Your task to perform on an android device: Open Wikipedia Image 0: 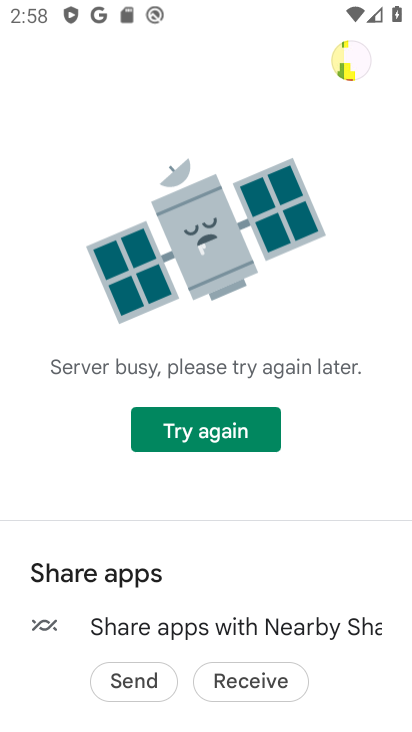
Step 0: press home button
Your task to perform on an android device: Open Wikipedia Image 1: 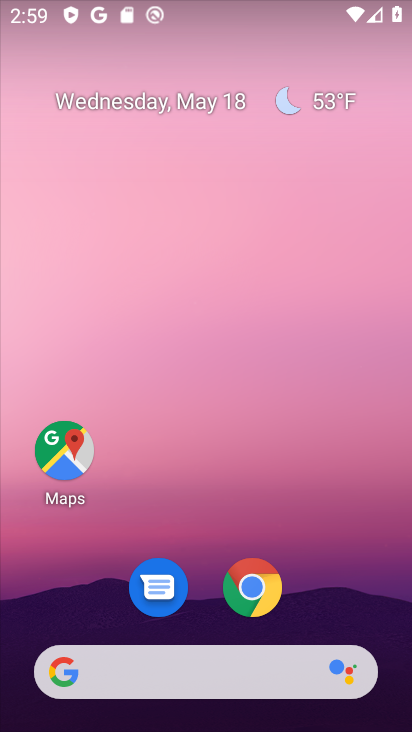
Step 1: drag from (241, 515) to (335, 65)
Your task to perform on an android device: Open Wikipedia Image 2: 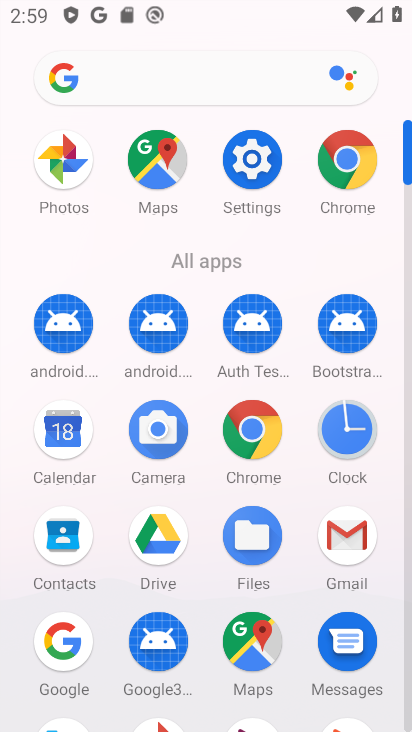
Step 2: click (343, 179)
Your task to perform on an android device: Open Wikipedia Image 3: 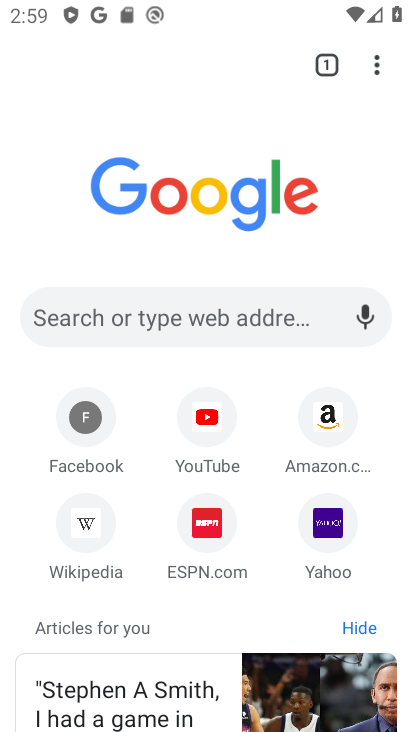
Step 3: click (378, 73)
Your task to perform on an android device: Open Wikipedia Image 4: 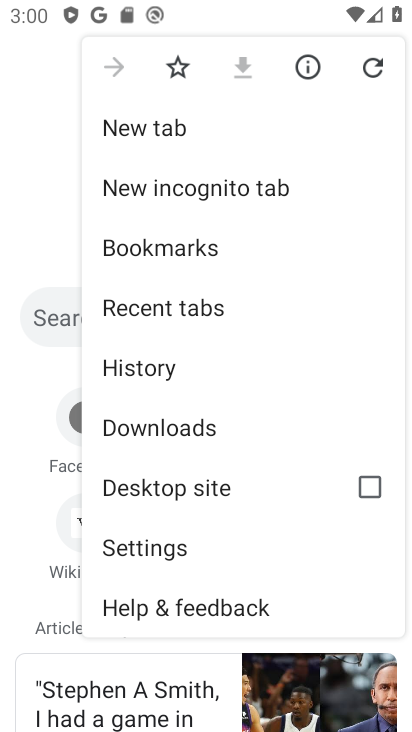
Step 4: click (37, 206)
Your task to perform on an android device: Open Wikipedia Image 5: 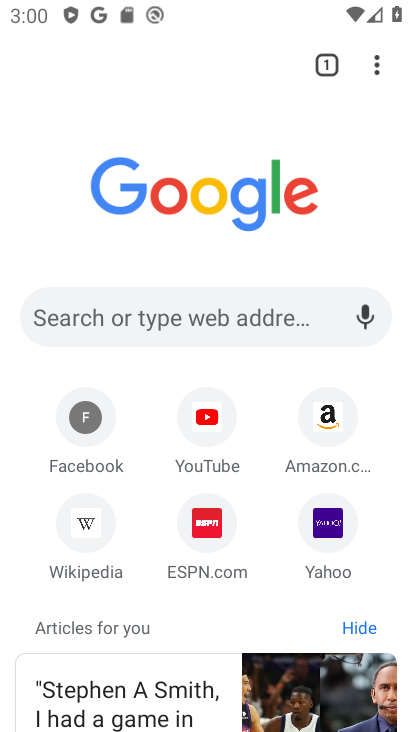
Step 5: click (148, 333)
Your task to perform on an android device: Open Wikipedia Image 6: 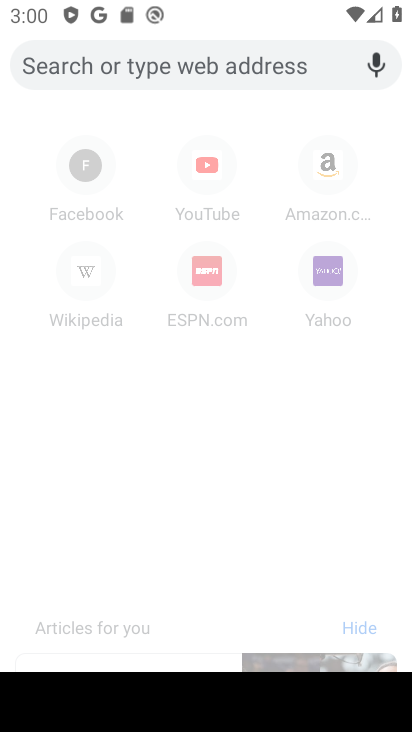
Step 6: press back button
Your task to perform on an android device: Open Wikipedia Image 7: 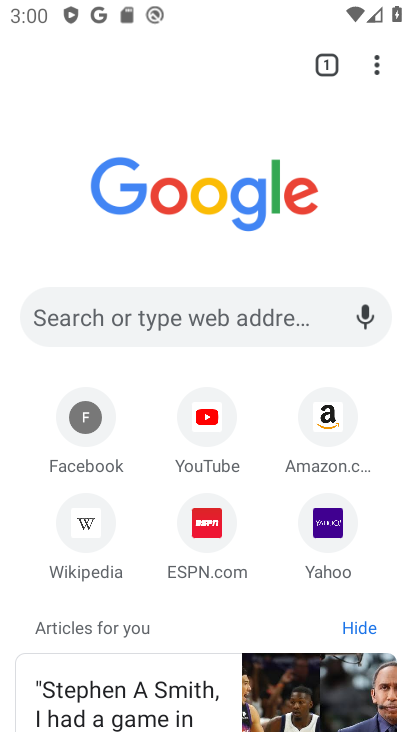
Step 7: click (76, 543)
Your task to perform on an android device: Open Wikipedia Image 8: 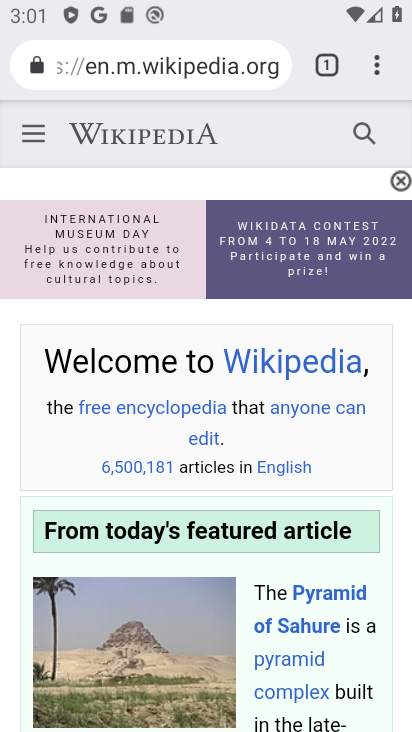
Step 8: task complete